Your task to perform on an android device: Google the capital of Uruguay Image 0: 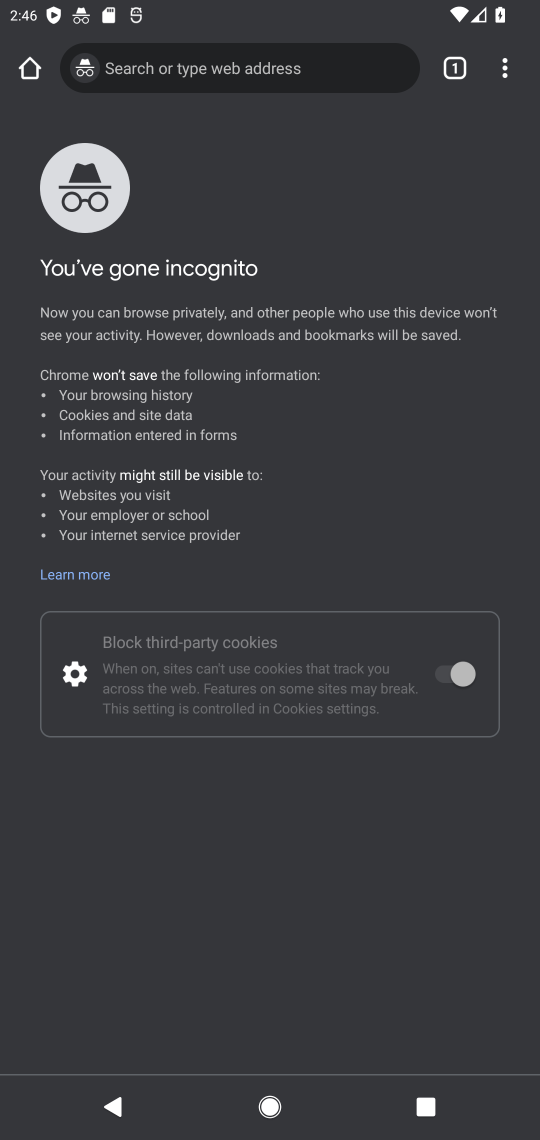
Step 0: press home button
Your task to perform on an android device: Google the capital of Uruguay Image 1: 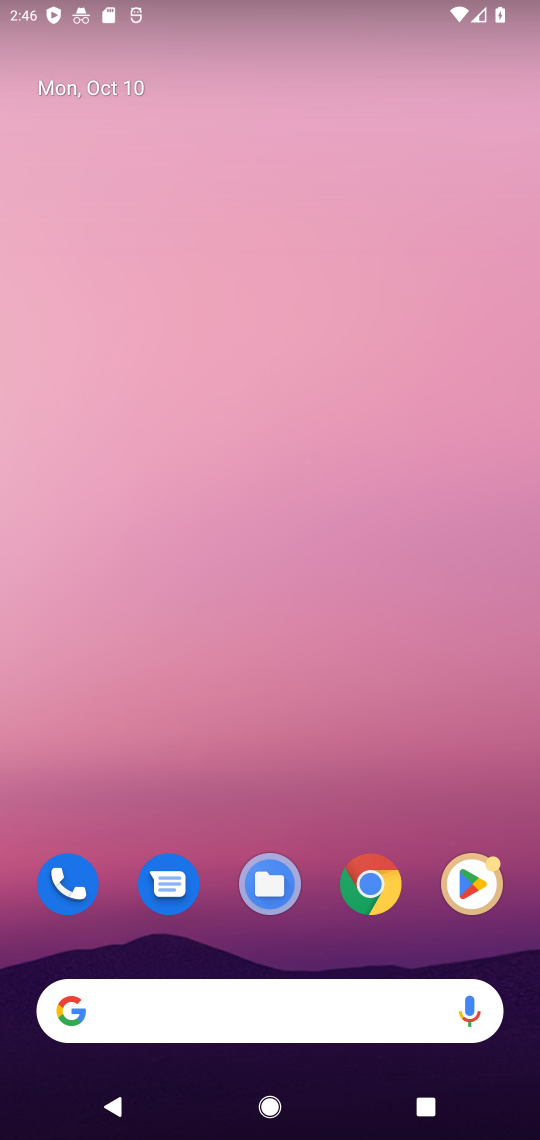
Step 1: click (264, 1014)
Your task to perform on an android device: Google the capital of Uruguay Image 2: 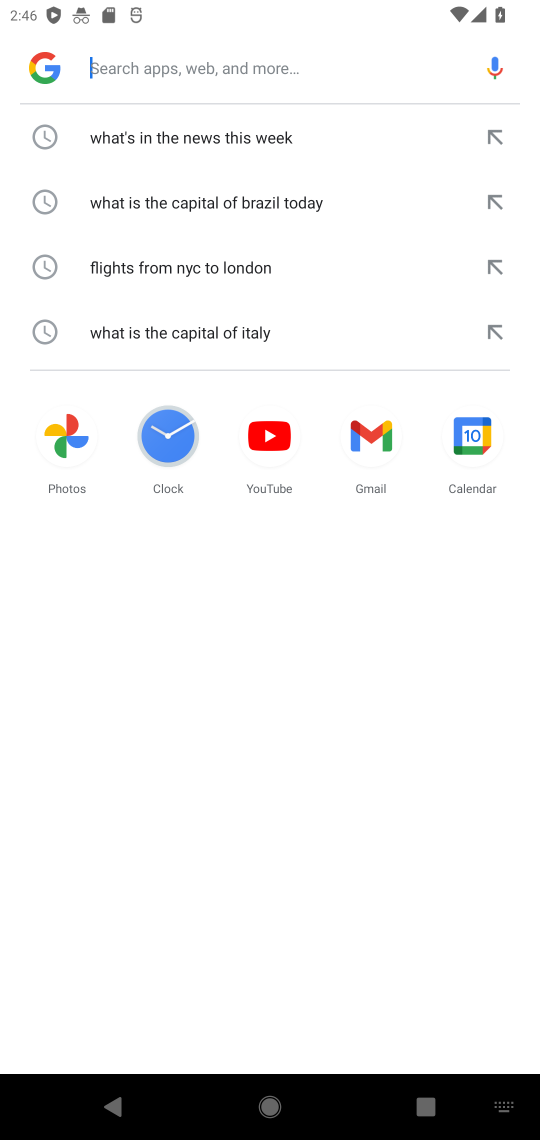
Step 2: type "capital of Uruguay"
Your task to perform on an android device: Google the capital of Uruguay Image 3: 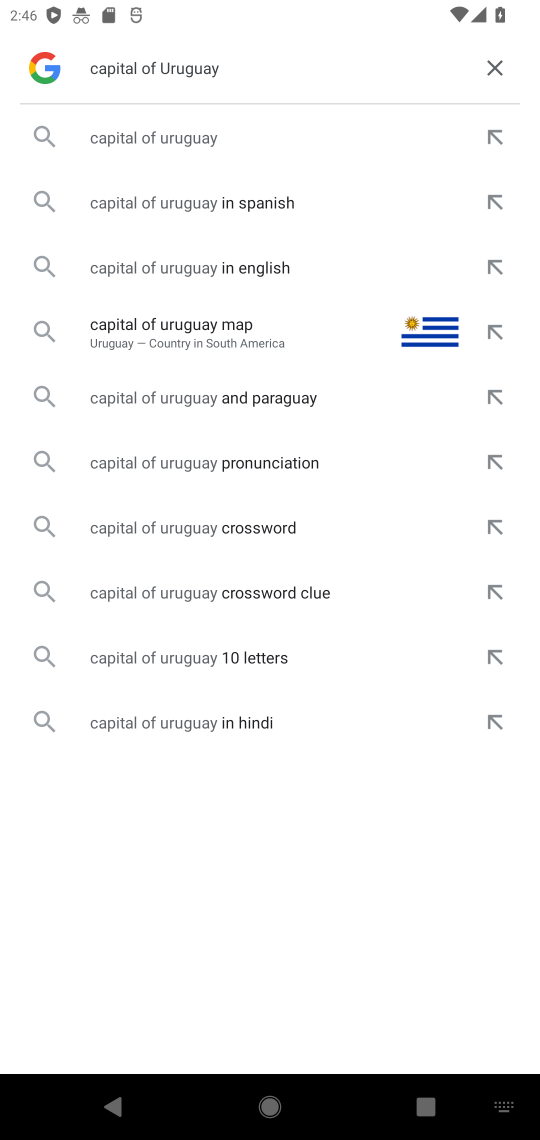
Step 3: click (154, 150)
Your task to perform on an android device: Google the capital of Uruguay Image 4: 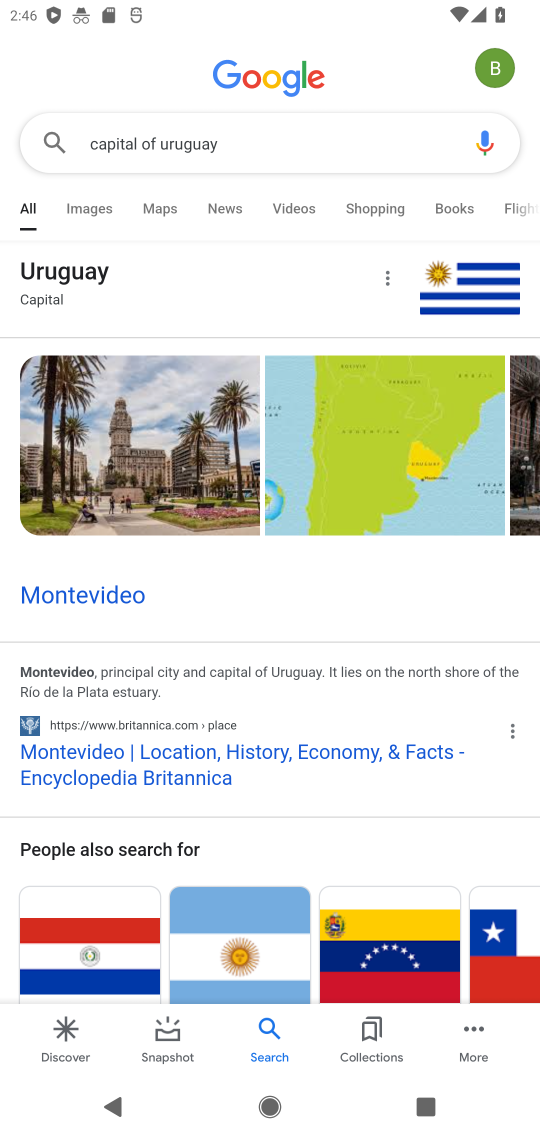
Step 4: task complete